Your task to perform on an android device: change notification settings in the gmail app Image 0: 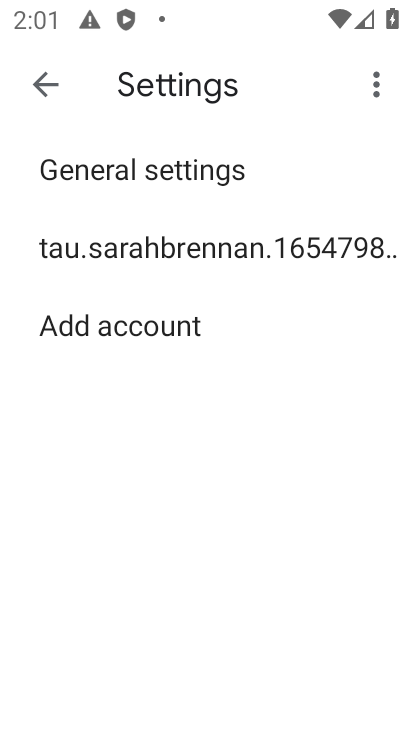
Step 0: press home button
Your task to perform on an android device: change notification settings in the gmail app Image 1: 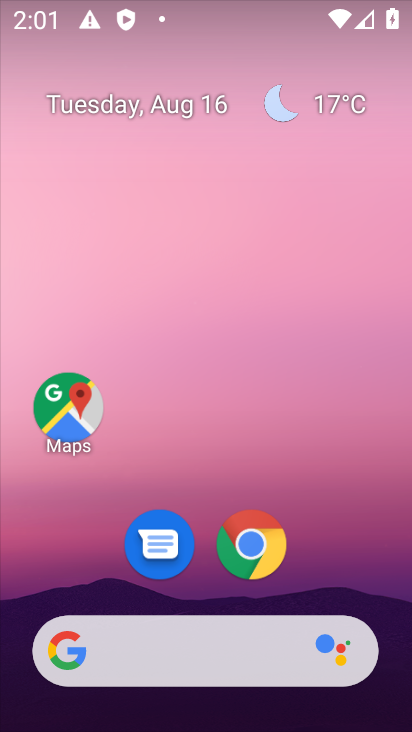
Step 1: drag from (156, 667) to (218, 193)
Your task to perform on an android device: change notification settings in the gmail app Image 2: 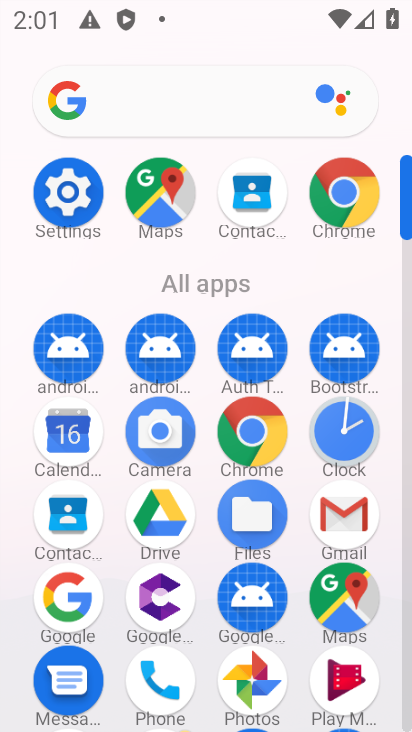
Step 2: click (341, 513)
Your task to perform on an android device: change notification settings in the gmail app Image 3: 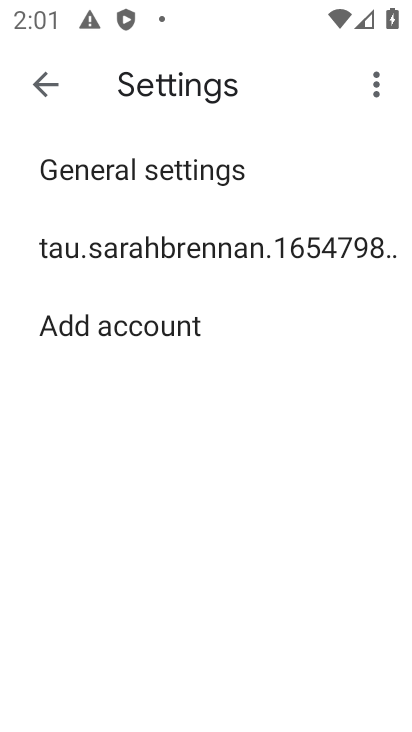
Step 3: click (208, 247)
Your task to perform on an android device: change notification settings in the gmail app Image 4: 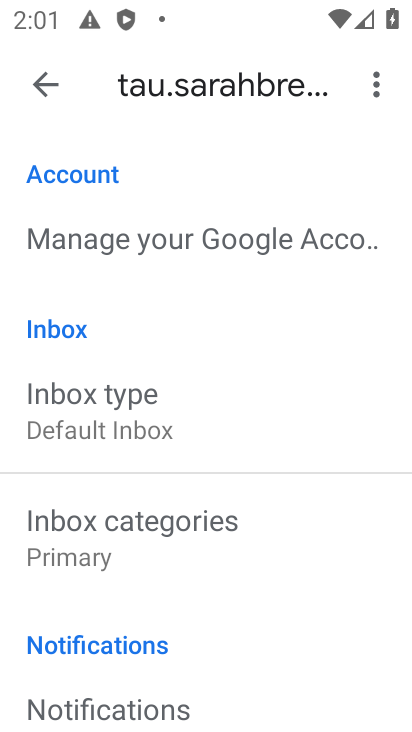
Step 4: drag from (151, 572) to (192, 460)
Your task to perform on an android device: change notification settings in the gmail app Image 5: 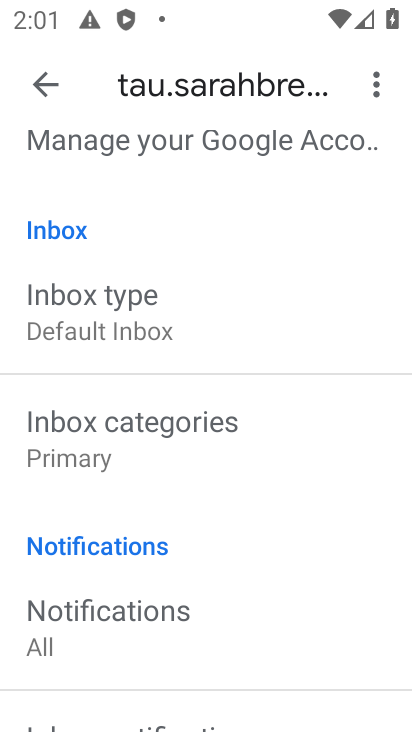
Step 5: drag from (120, 574) to (170, 480)
Your task to perform on an android device: change notification settings in the gmail app Image 6: 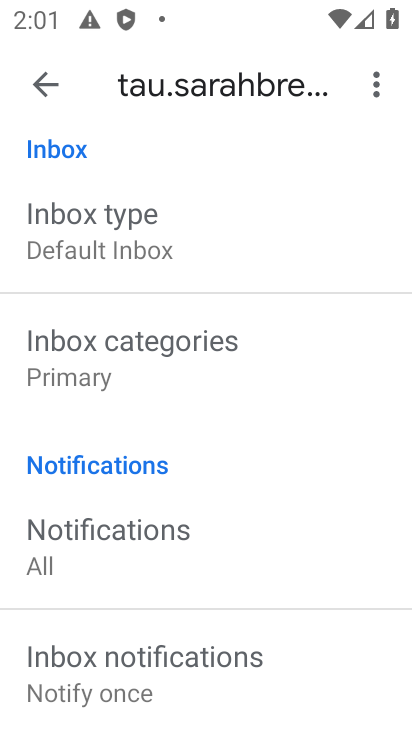
Step 6: drag from (135, 563) to (177, 468)
Your task to perform on an android device: change notification settings in the gmail app Image 7: 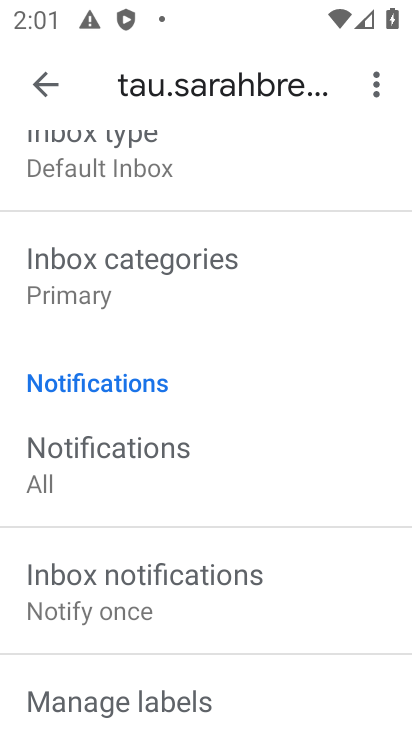
Step 7: drag from (115, 641) to (192, 500)
Your task to perform on an android device: change notification settings in the gmail app Image 8: 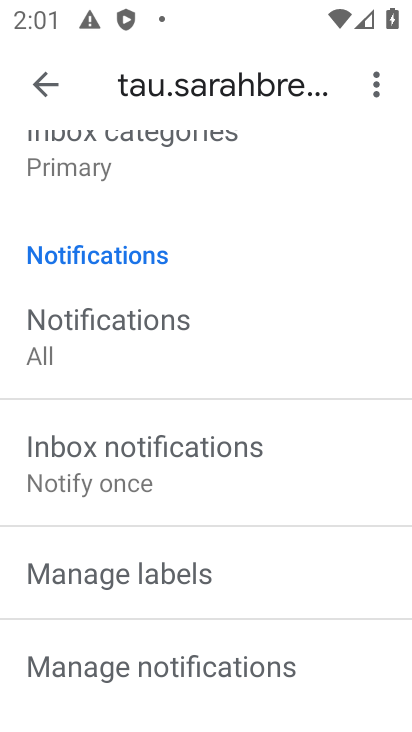
Step 8: drag from (148, 641) to (210, 519)
Your task to perform on an android device: change notification settings in the gmail app Image 9: 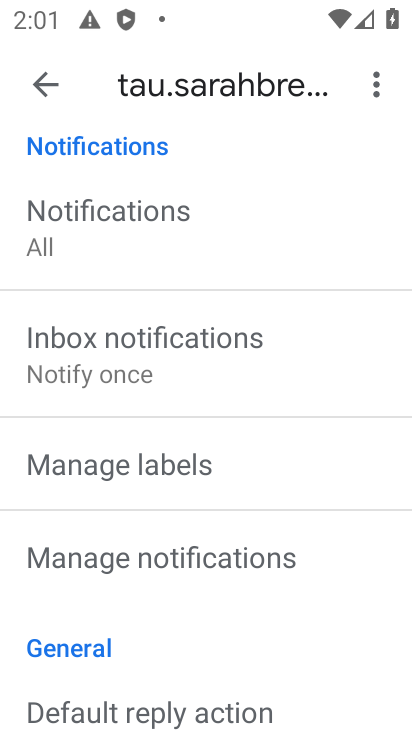
Step 9: click (172, 562)
Your task to perform on an android device: change notification settings in the gmail app Image 10: 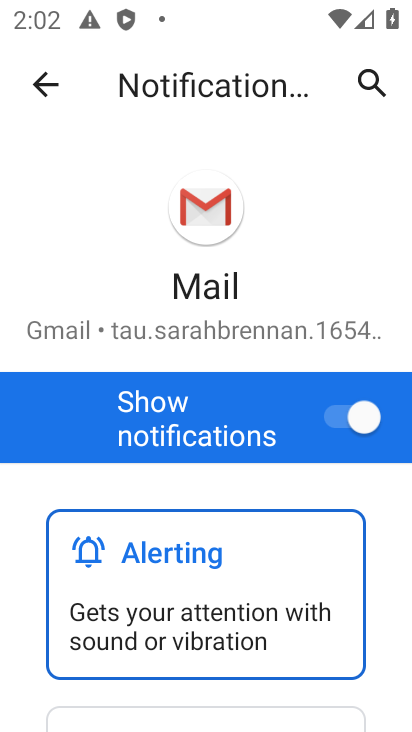
Step 10: click (332, 430)
Your task to perform on an android device: change notification settings in the gmail app Image 11: 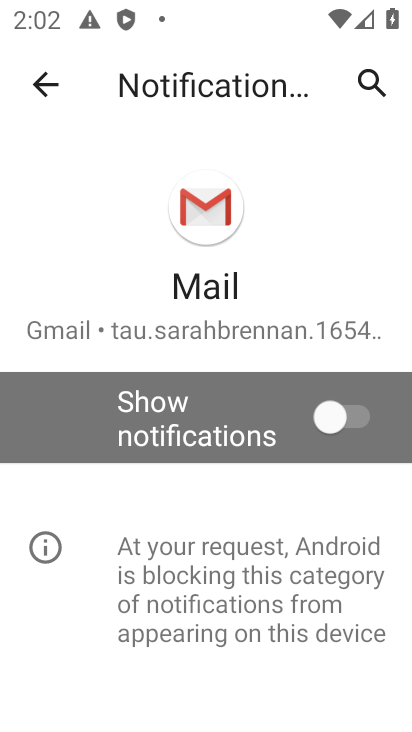
Step 11: task complete